Your task to perform on an android device: open app "Chime – Mobile Banking" Image 0: 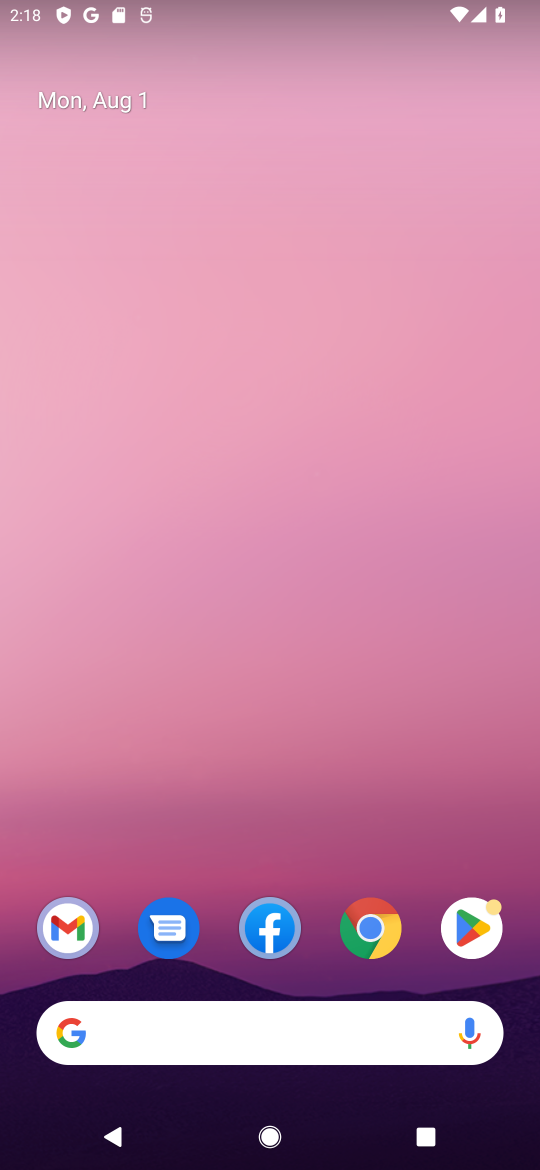
Step 0: click (463, 928)
Your task to perform on an android device: open app "Chime – Mobile Banking" Image 1: 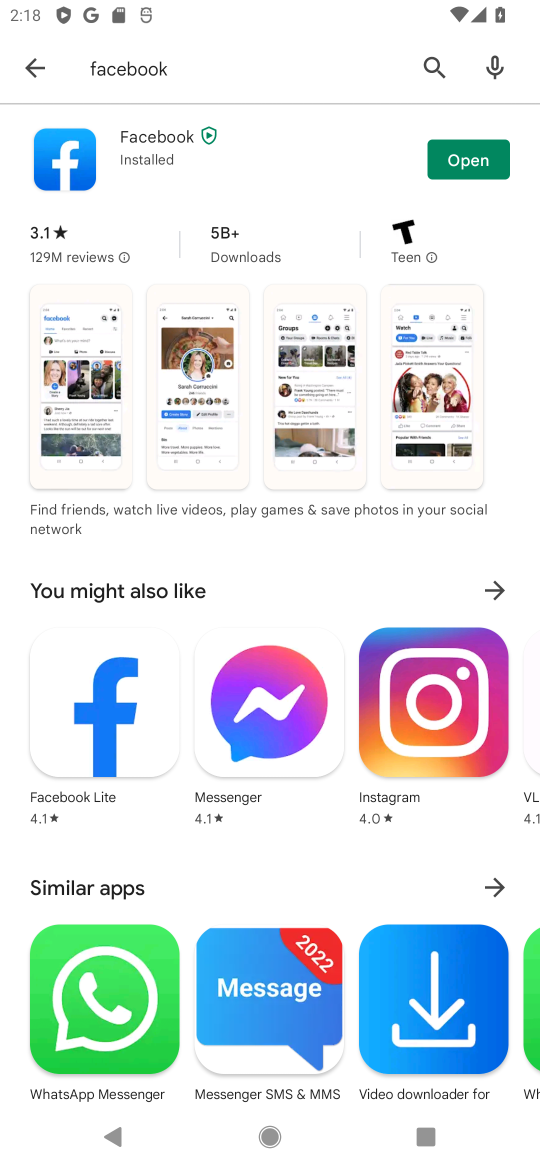
Step 1: click (443, 58)
Your task to perform on an android device: open app "Chime – Mobile Banking" Image 2: 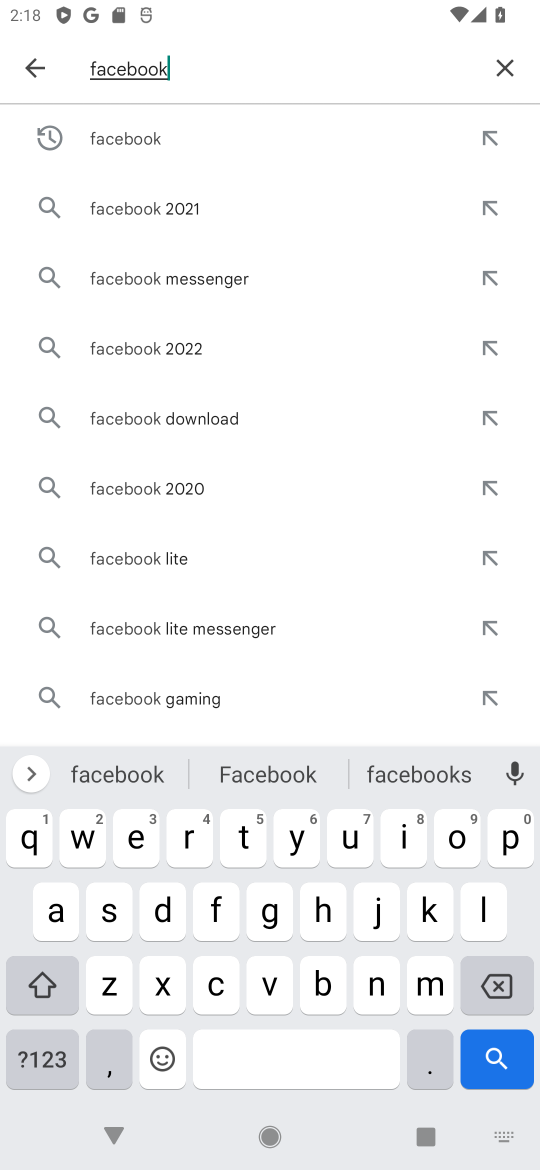
Step 2: click (506, 61)
Your task to perform on an android device: open app "Chime – Mobile Banking" Image 3: 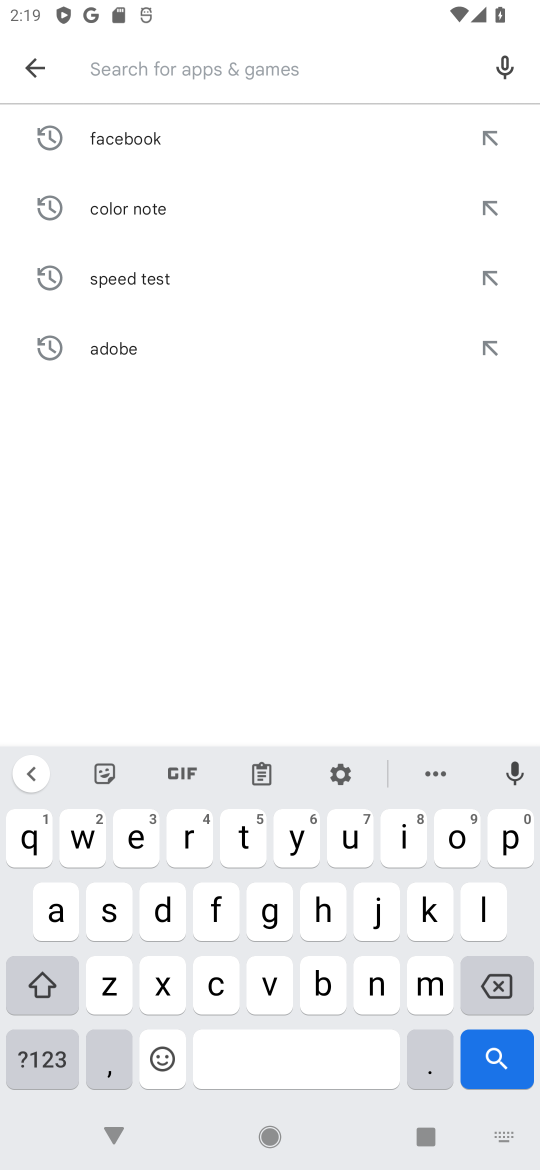
Step 3: click (220, 986)
Your task to perform on an android device: open app "Chime – Mobile Banking" Image 4: 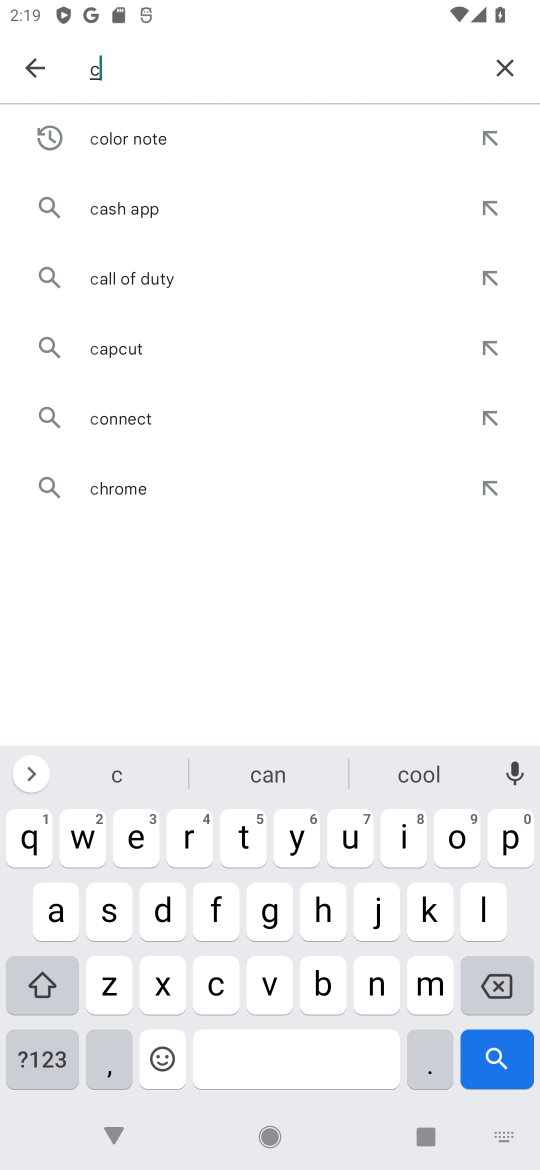
Step 4: click (325, 914)
Your task to perform on an android device: open app "Chime – Mobile Banking" Image 5: 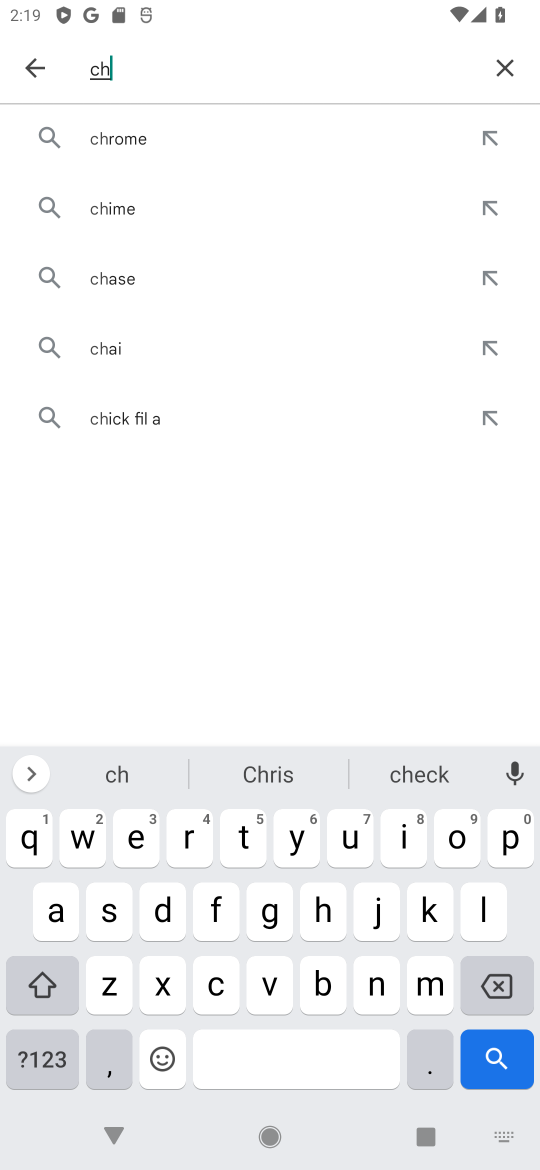
Step 5: click (403, 849)
Your task to perform on an android device: open app "Chime – Mobile Banking" Image 6: 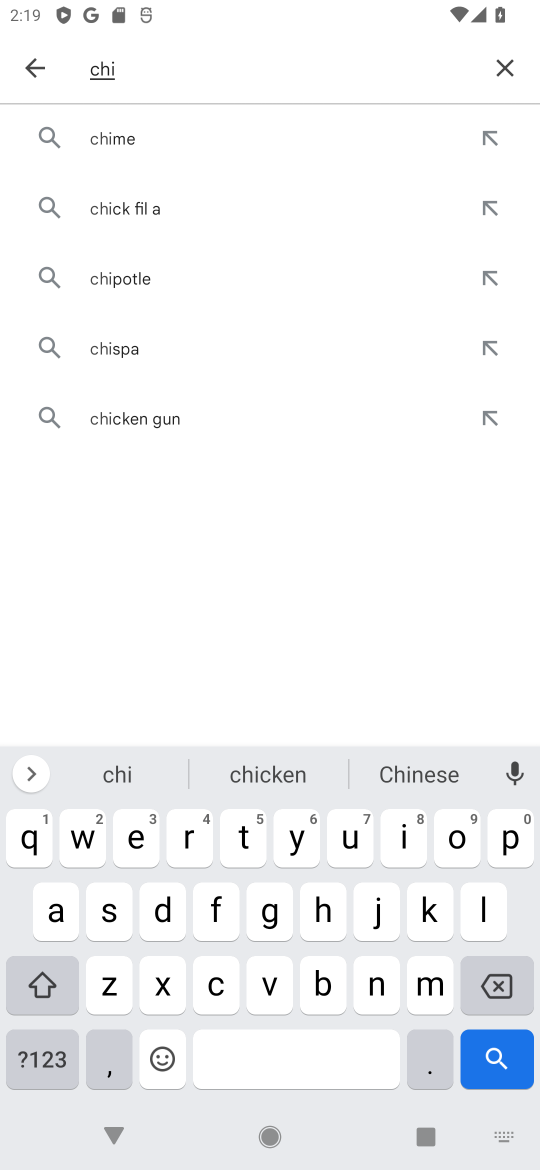
Step 6: click (109, 139)
Your task to perform on an android device: open app "Chime – Mobile Banking" Image 7: 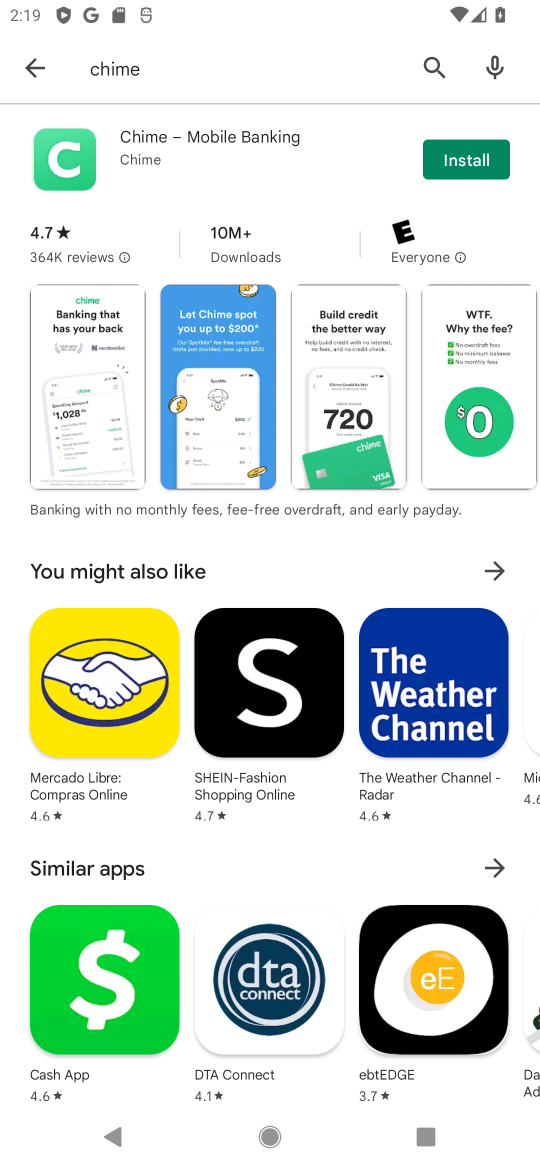
Step 7: task complete